Your task to perform on an android device: check battery use Image 0: 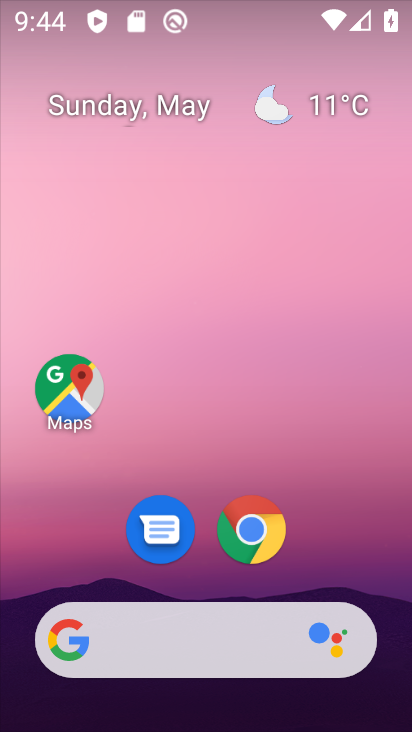
Step 0: drag from (193, 599) to (254, 279)
Your task to perform on an android device: check battery use Image 1: 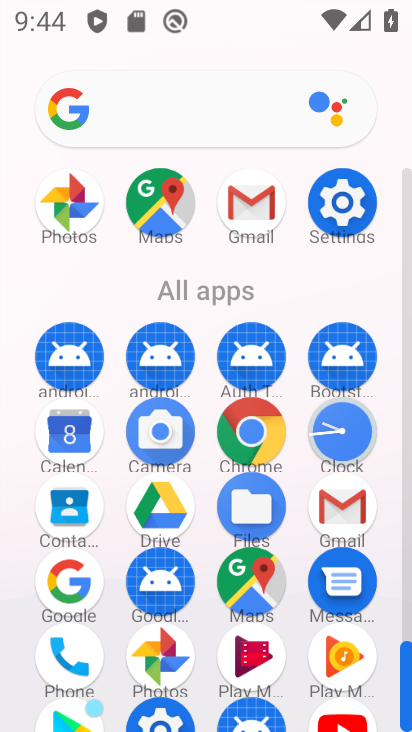
Step 1: drag from (123, 670) to (198, 458)
Your task to perform on an android device: check battery use Image 2: 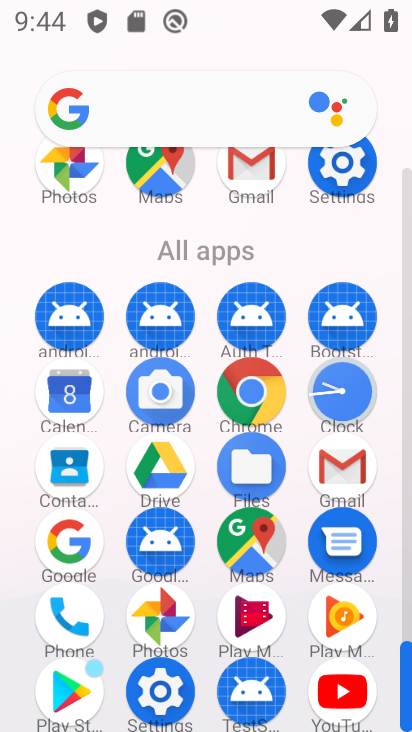
Step 2: click (162, 696)
Your task to perform on an android device: check battery use Image 3: 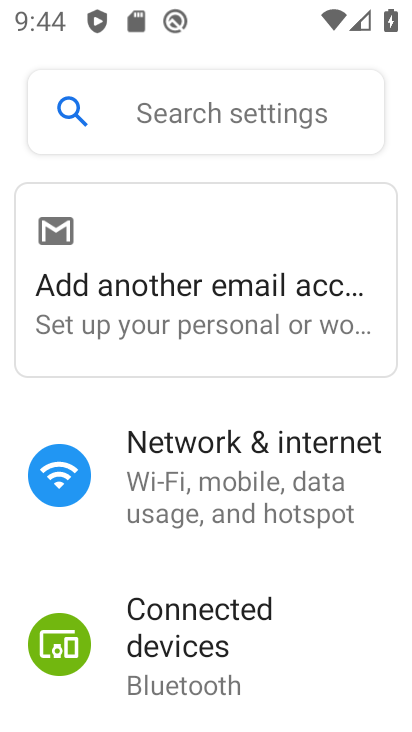
Step 3: drag from (336, 709) to (352, 505)
Your task to perform on an android device: check battery use Image 4: 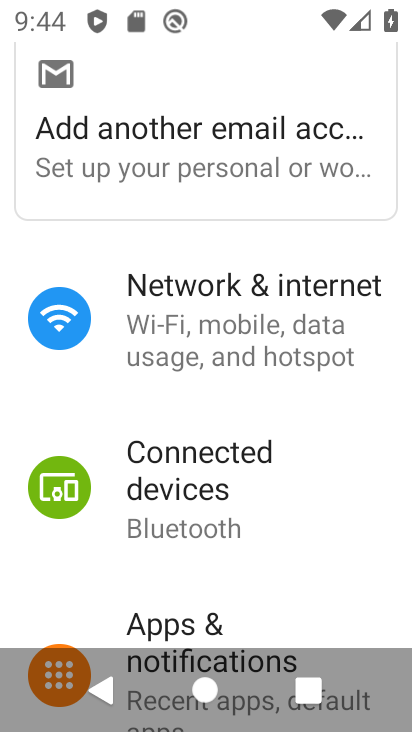
Step 4: drag from (163, 625) to (246, 272)
Your task to perform on an android device: check battery use Image 5: 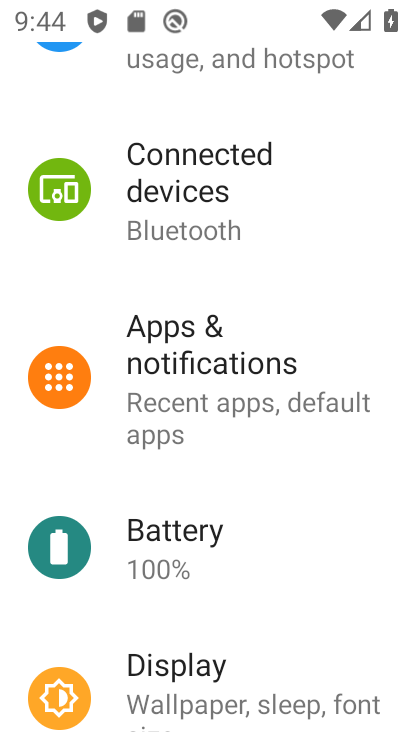
Step 5: click (233, 528)
Your task to perform on an android device: check battery use Image 6: 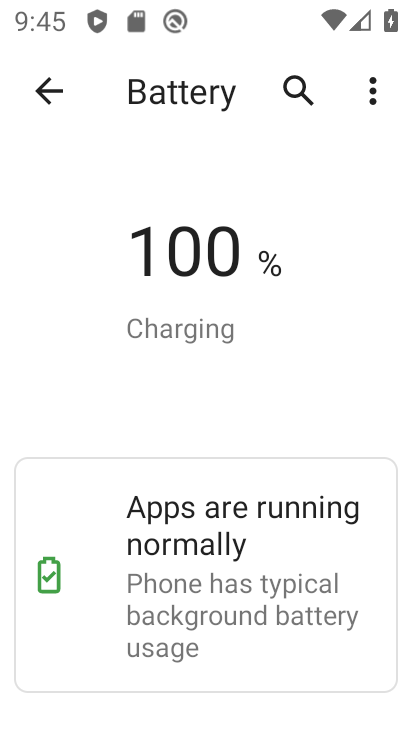
Step 6: drag from (236, 692) to (281, 475)
Your task to perform on an android device: check battery use Image 7: 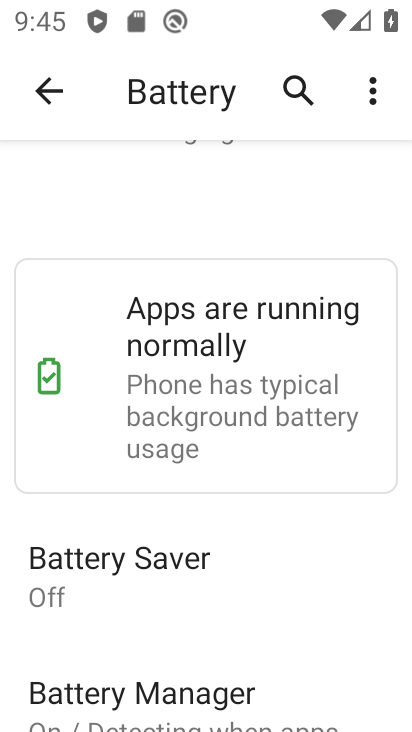
Step 7: drag from (260, 587) to (310, 386)
Your task to perform on an android device: check battery use Image 8: 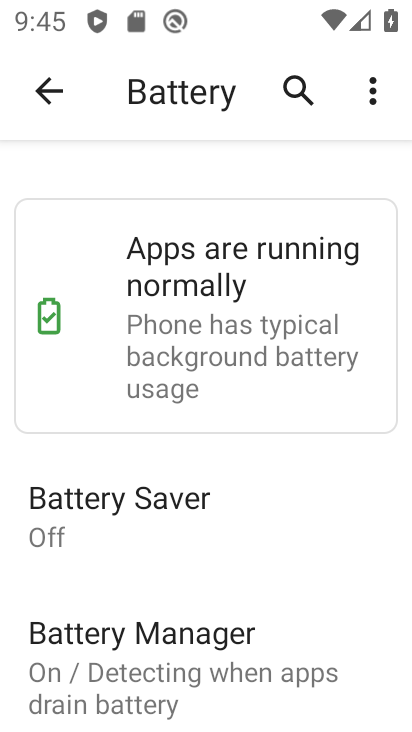
Step 8: click (399, 94)
Your task to perform on an android device: check battery use Image 9: 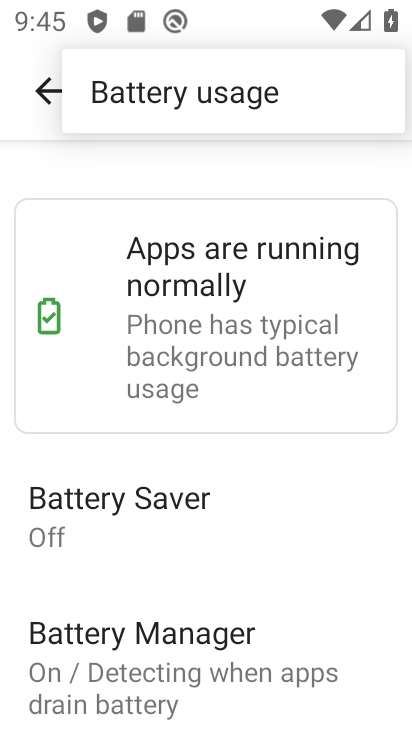
Step 9: click (387, 92)
Your task to perform on an android device: check battery use Image 10: 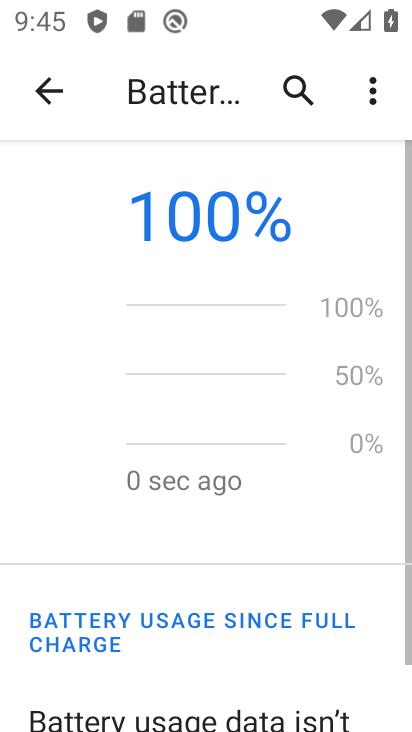
Step 10: click (387, 92)
Your task to perform on an android device: check battery use Image 11: 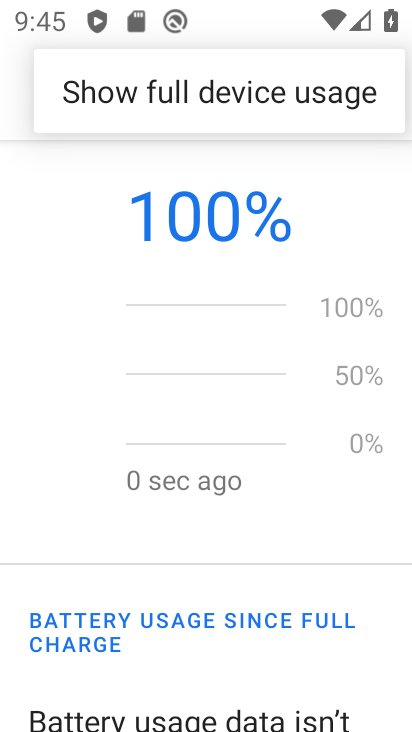
Step 11: task complete